Your task to perform on an android device: See recent photos Image 0: 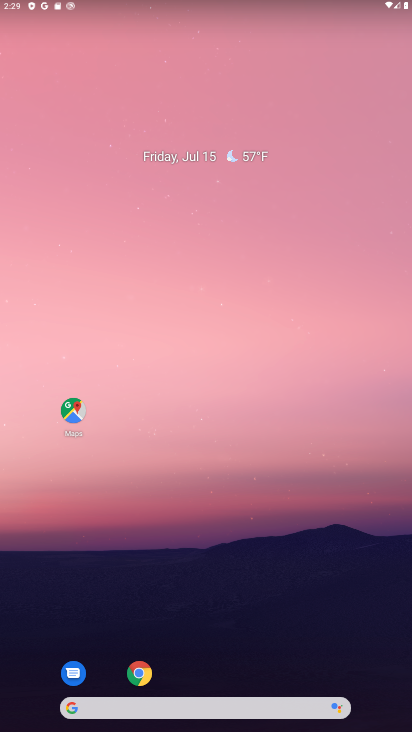
Step 0: drag from (254, 641) to (186, 118)
Your task to perform on an android device: See recent photos Image 1: 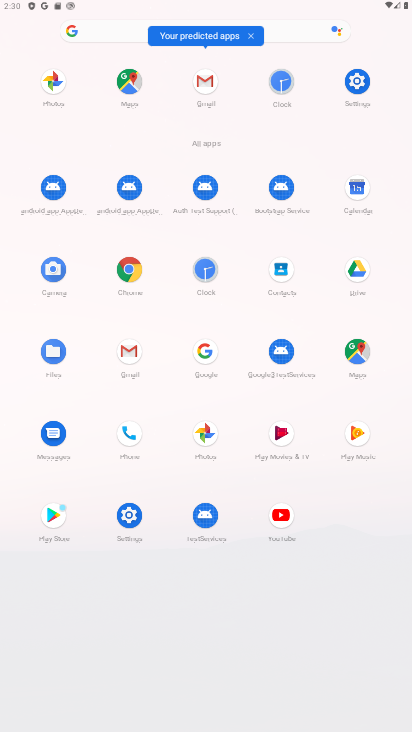
Step 1: click (209, 438)
Your task to perform on an android device: See recent photos Image 2: 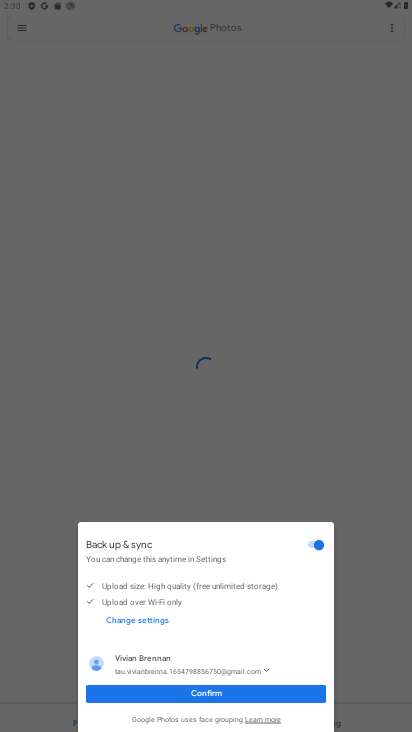
Step 2: click (258, 693)
Your task to perform on an android device: See recent photos Image 3: 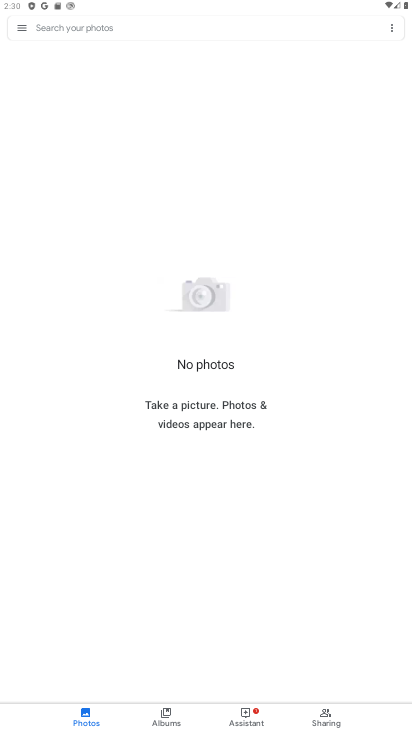
Step 3: task complete